Your task to perform on an android device: toggle sleep mode Image 0: 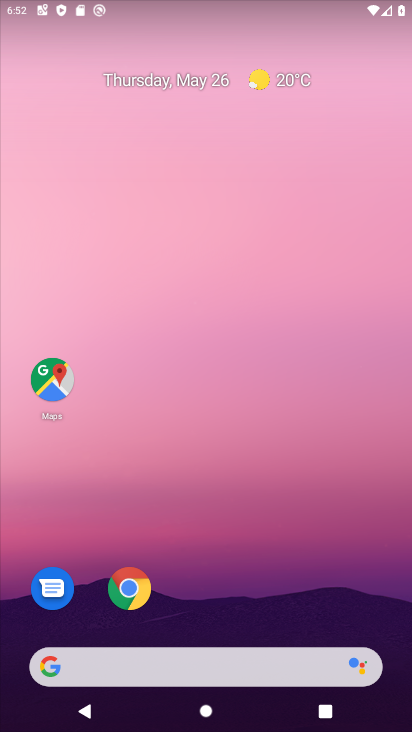
Step 0: drag from (315, 616) to (263, 15)
Your task to perform on an android device: toggle sleep mode Image 1: 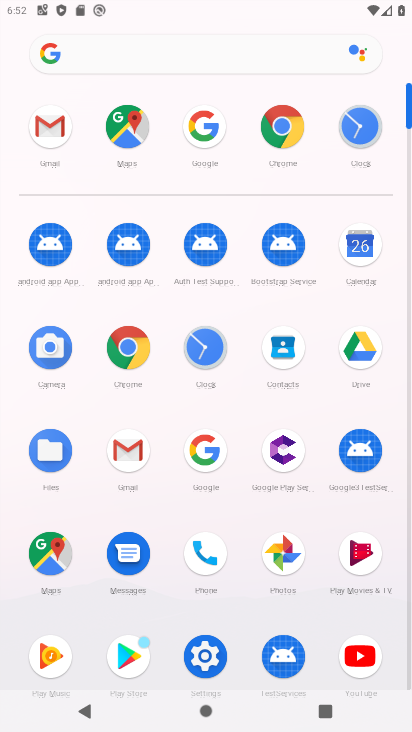
Step 1: click (223, 666)
Your task to perform on an android device: toggle sleep mode Image 2: 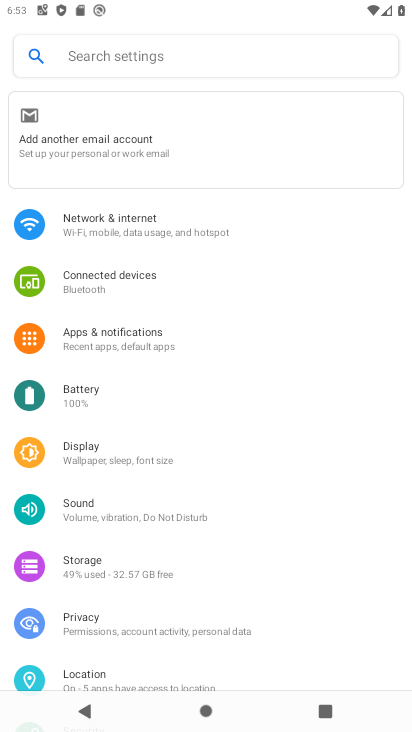
Step 2: task complete